Your task to perform on an android device: clear all cookies in the chrome app Image 0: 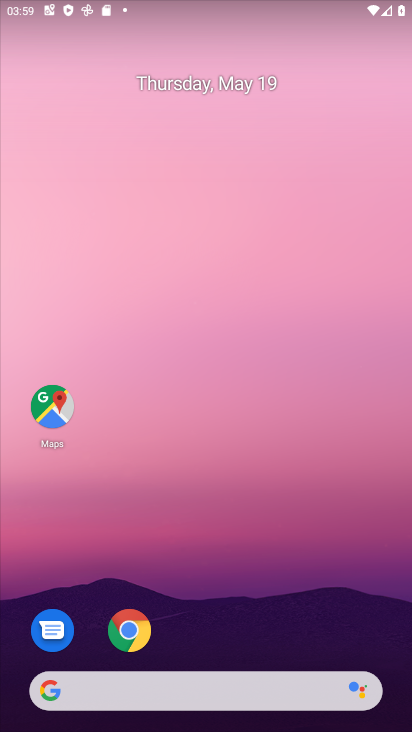
Step 0: click (134, 633)
Your task to perform on an android device: clear all cookies in the chrome app Image 1: 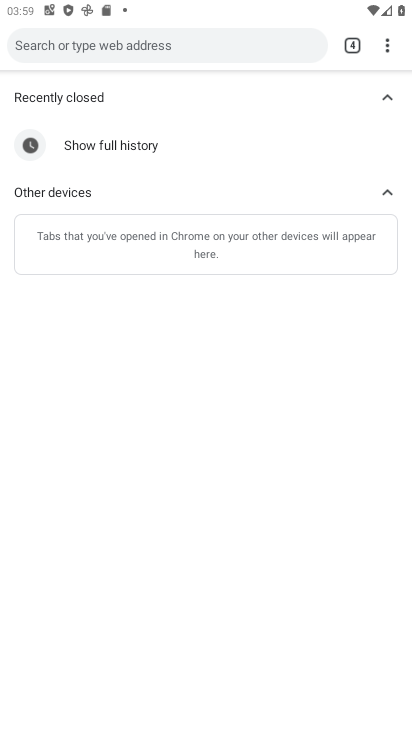
Step 1: click (388, 49)
Your task to perform on an android device: clear all cookies in the chrome app Image 2: 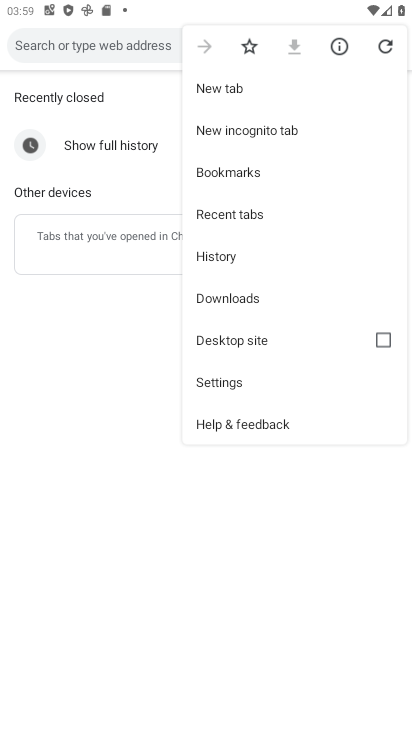
Step 2: click (211, 256)
Your task to perform on an android device: clear all cookies in the chrome app Image 3: 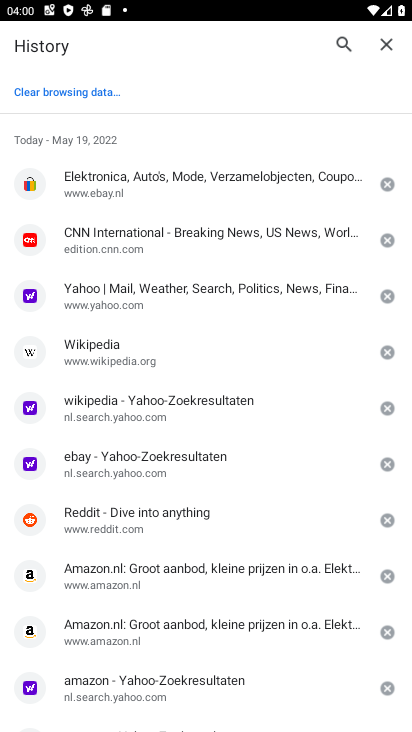
Step 3: click (59, 91)
Your task to perform on an android device: clear all cookies in the chrome app Image 4: 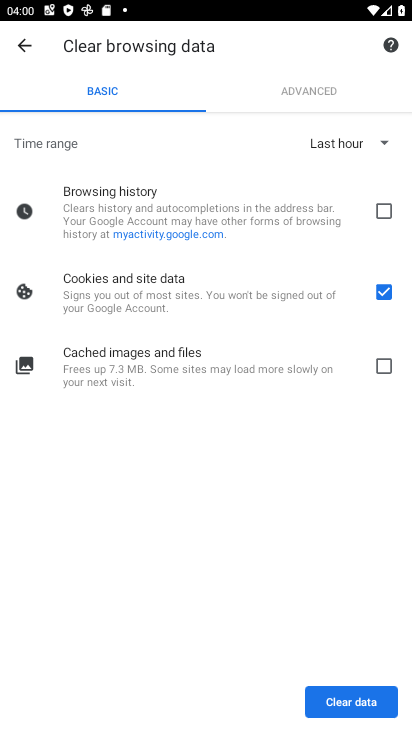
Step 4: click (352, 705)
Your task to perform on an android device: clear all cookies in the chrome app Image 5: 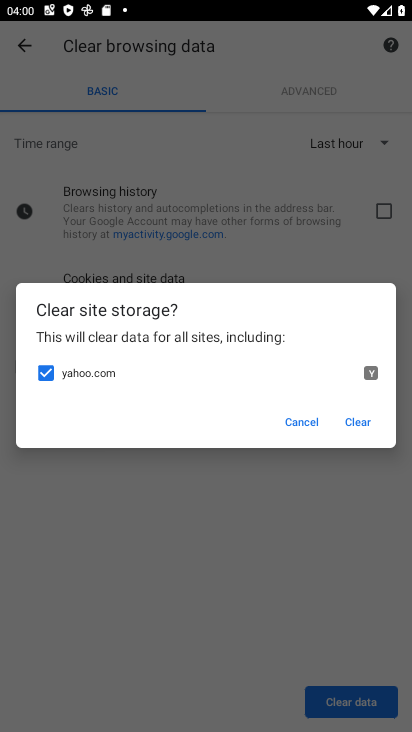
Step 5: click (353, 422)
Your task to perform on an android device: clear all cookies in the chrome app Image 6: 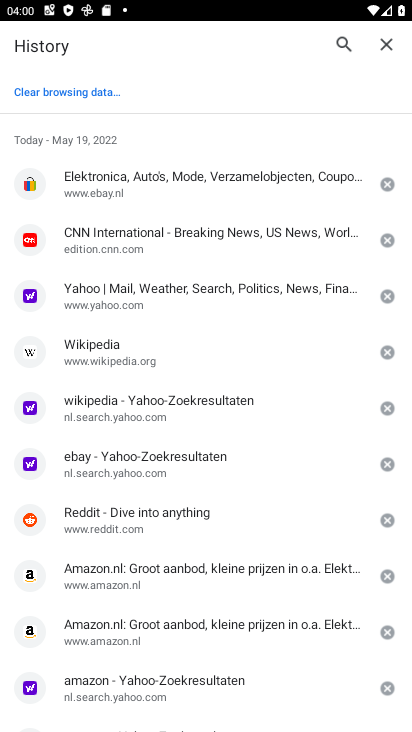
Step 6: task complete